Your task to perform on an android device: read, delete, or share a saved page in the chrome app Image 0: 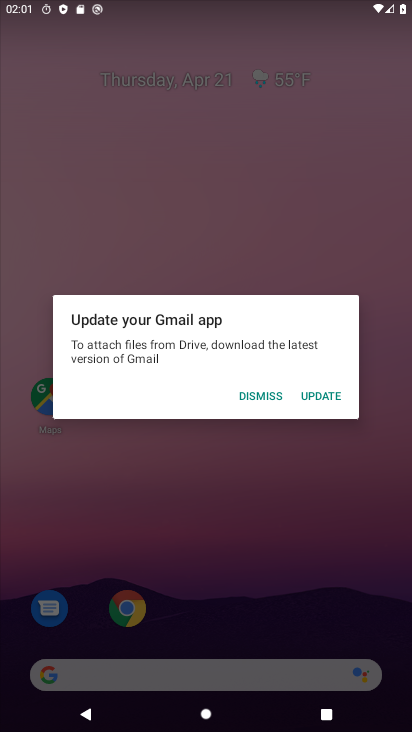
Step 0: press home button
Your task to perform on an android device: read, delete, or share a saved page in the chrome app Image 1: 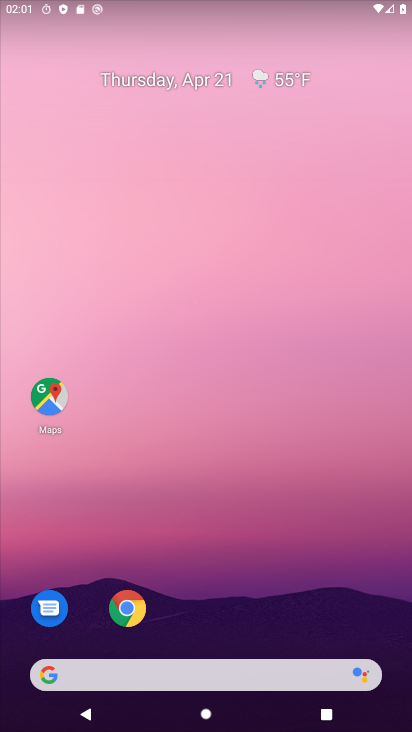
Step 1: click (139, 598)
Your task to perform on an android device: read, delete, or share a saved page in the chrome app Image 2: 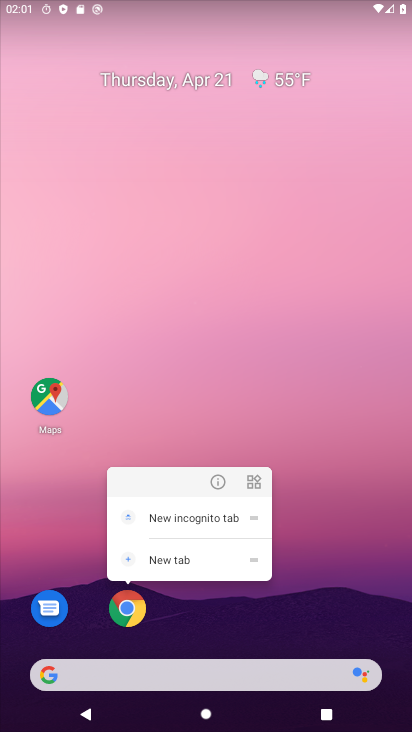
Step 2: click (130, 600)
Your task to perform on an android device: read, delete, or share a saved page in the chrome app Image 3: 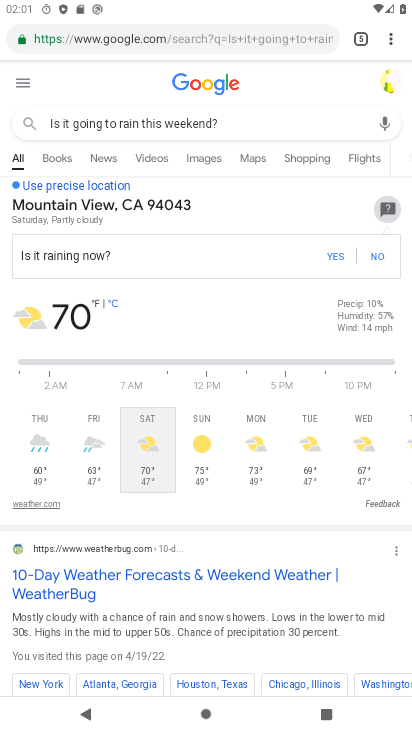
Step 3: drag from (392, 35) to (276, 194)
Your task to perform on an android device: read, delete, or share a saved page in the chrome app Image 4: 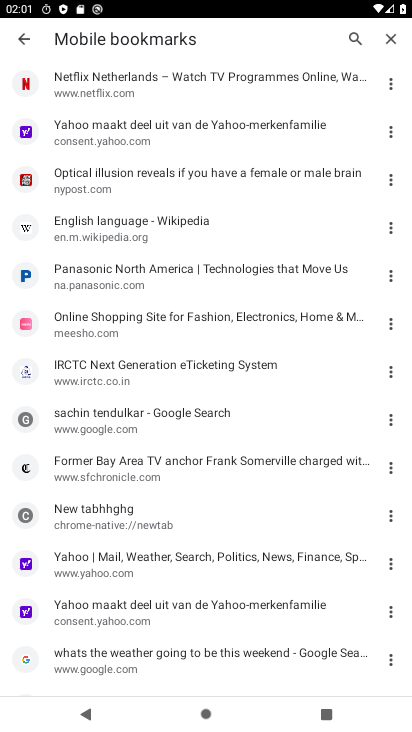
Step 4: click (389, 467)
Your task to perform on an android device: read, delete, or share a saved page in the chrome app Image 5: 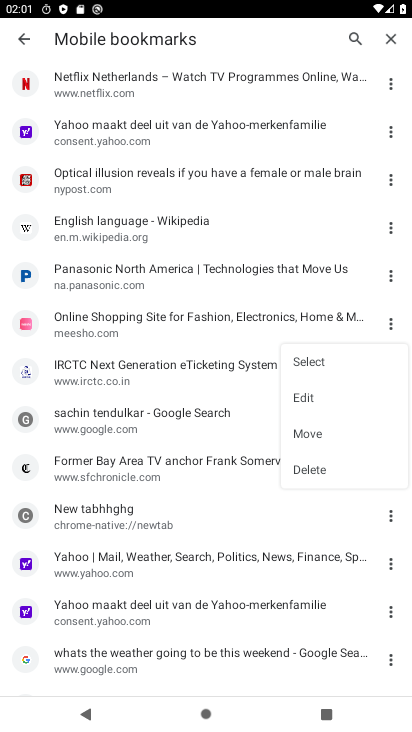
Step 5: click (306, 468)
Your task to perform on an android device: read, delete, or share a saved page in the chrome app Image 6: 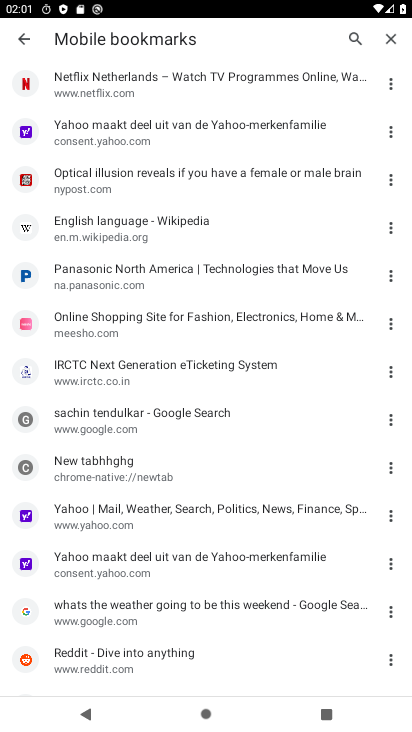
Step 6: task complete